Your task to perform on an android device: Search for sushi restaurants on Maps Image 0: 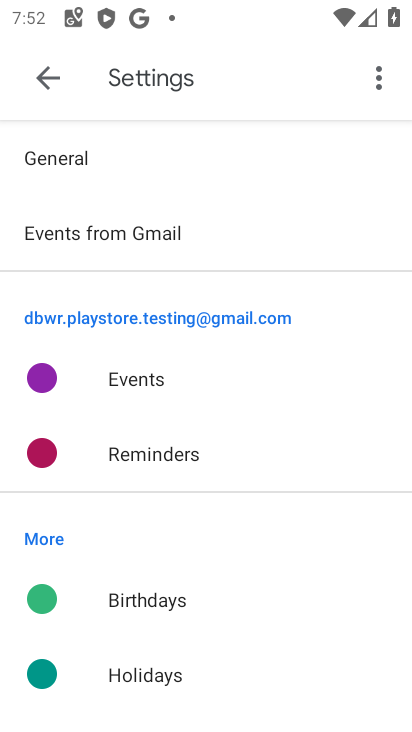
Step 0: press home button
Your task to perform on an android device: Search for sushi restaurants on Maps Image 1: 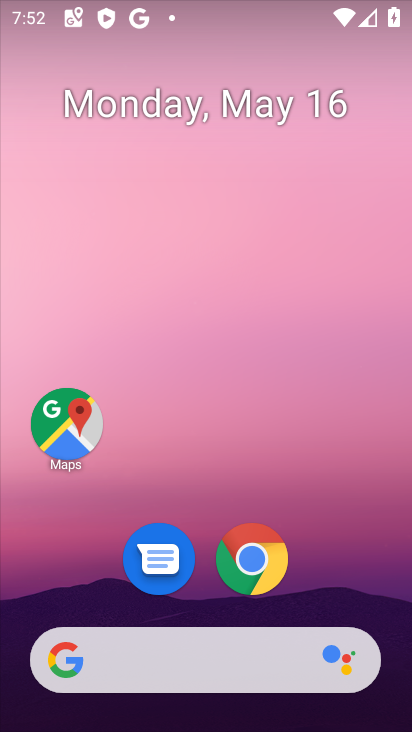
Step 1: drag from (365, 570) to (359, 176)
Your task to perform on an android device: Search for sushi restaurants on Maps Image 2: 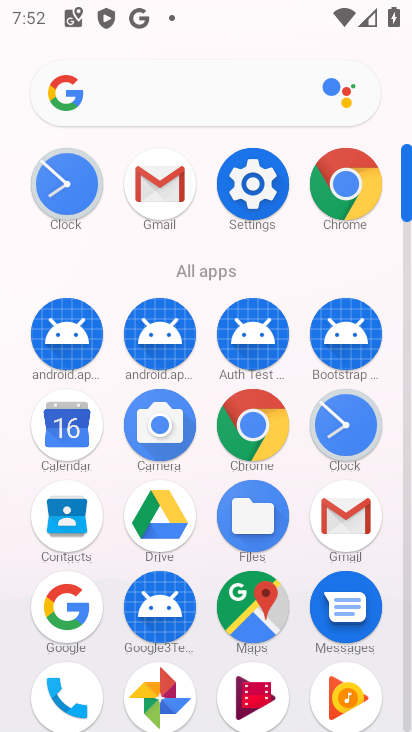
Step 2: click (242, 603)
Your task to perform on an android device: Search for sushi restaurants on Maps Image 3: 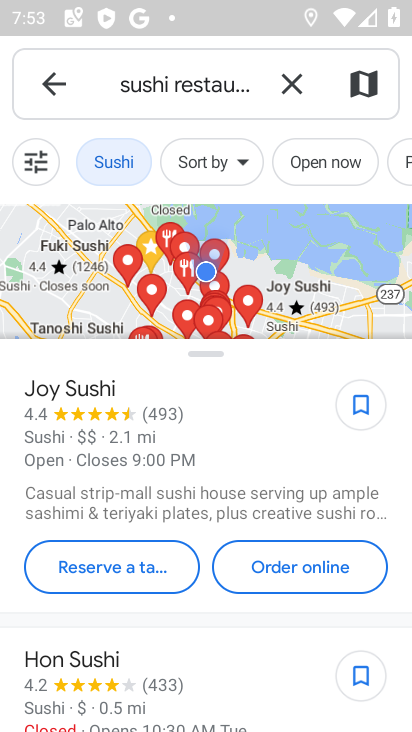
Step 3: task complete